Your task to perform on an android device: see creations saved in the google photos Image 0: 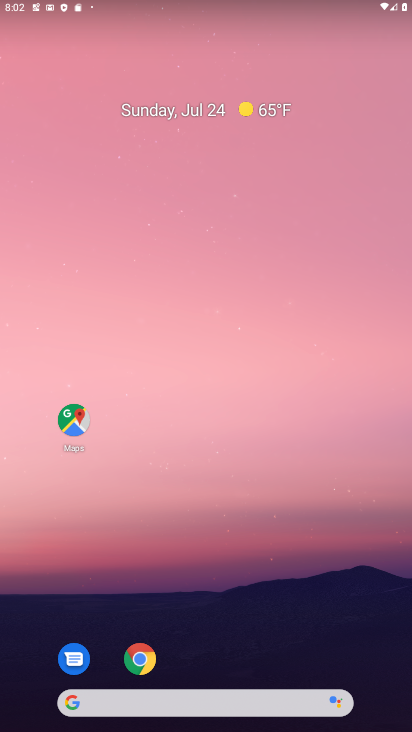
Step 0: drag from (280, 614) to (261, 15)
Your task to perform on an android device: see creations saved in the google photos Image 1: 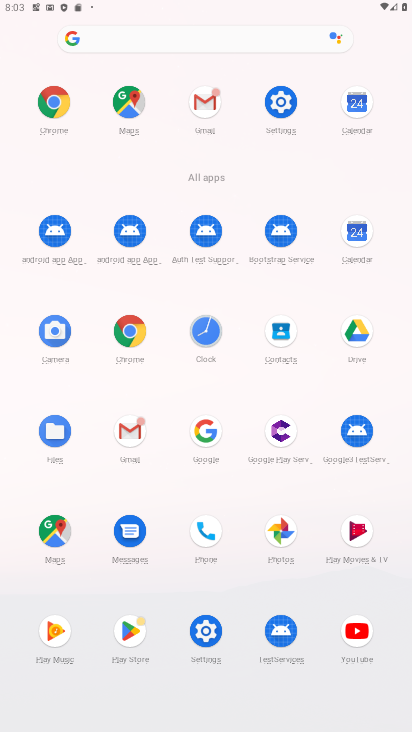
Step 1: click (279, 538)
Your task to perform on an android device: see creations saved in the google photos Image 2: 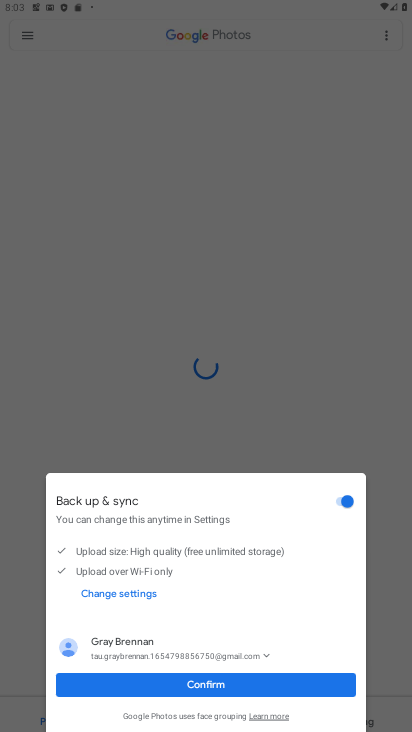
Step 2: click (200, 694)
Your task to perform on an android device: see creations saved in the google photos Image 3: 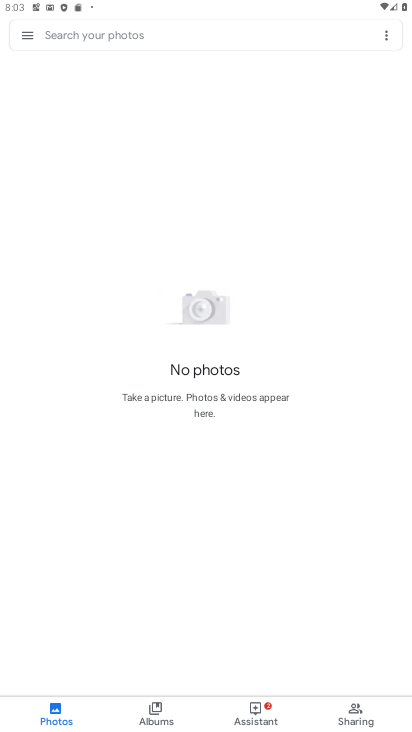
Step 3: click (94, 34)
Your task to perform on an android device: see creations saved in the google photos Image 4: 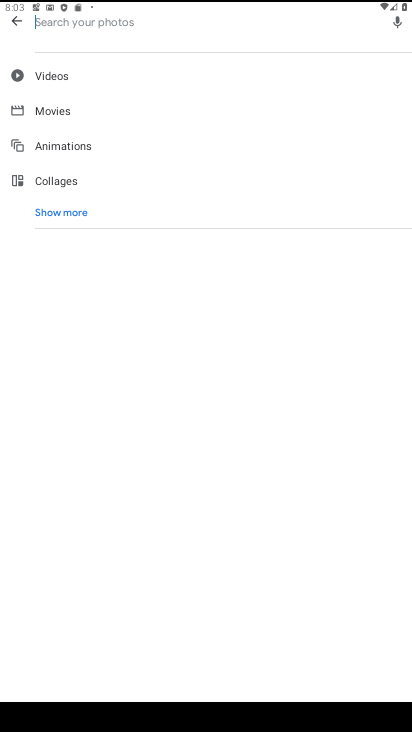
Step 4: click (45, 224)
Your task to perform on an android device: see creations saved in the google photos Image 5: 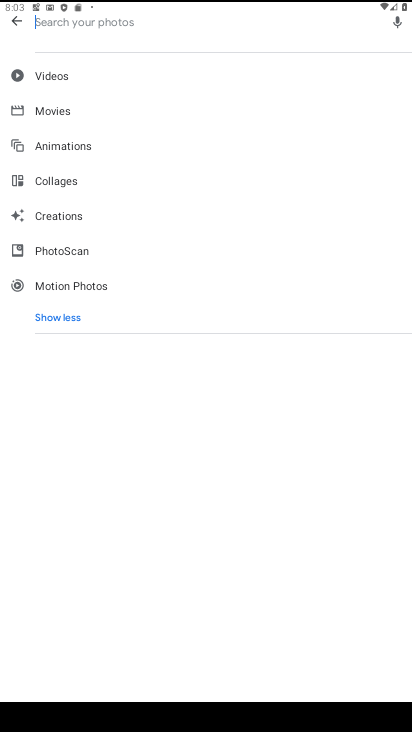
Step 5: click (47, 219)
Your task to perform on an android device: see creations saved in the google photos Image 6: 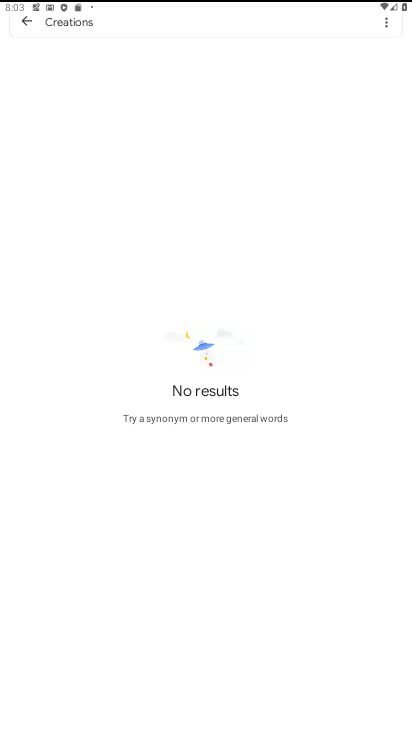
Step 6: task complete